Your task to perform on an android device: open wifi settings Image 0: 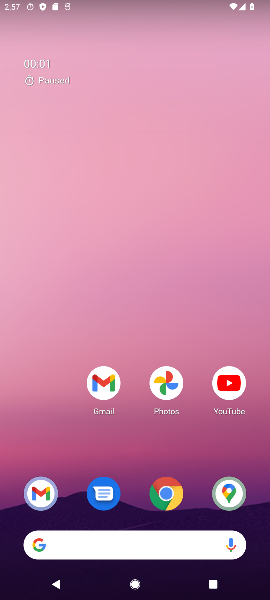
Step 0: drag from (23, 566) to (198, 4)
Your task to perform on an android device: open wifi settings Image 1: 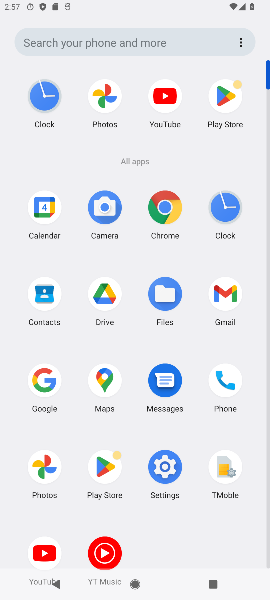
Step 1: click (155, 467)
Your task to perform on an android device: open wifi settings Image 2: 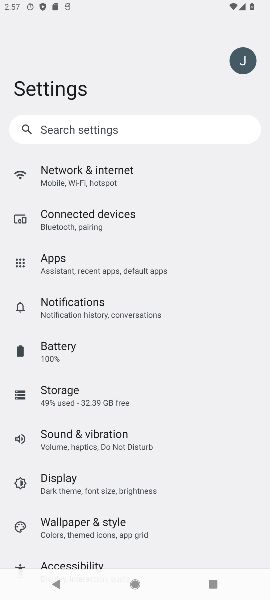
Step 2: task complete